Your task to perform on an android device: change the upload size in google photos Image 0: 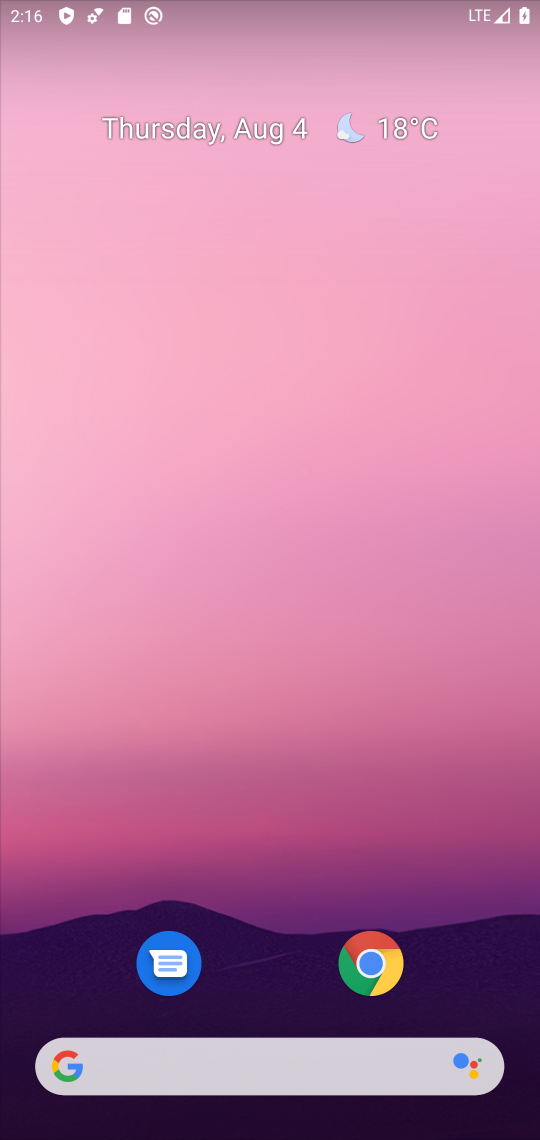
Step 0: drag from (259, 1101) to (180, 169)
Your task to perform on an android device: change the upload size in google photos Image 1: 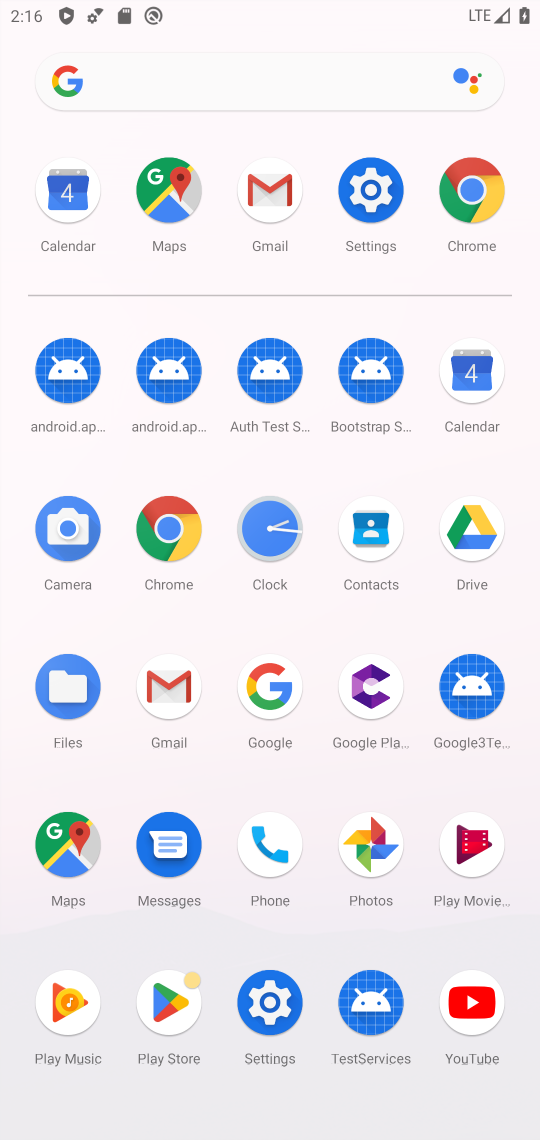
Step 1: click (377, 854)
Your task to perform on an android device: change the upload size in google photos Image 2: 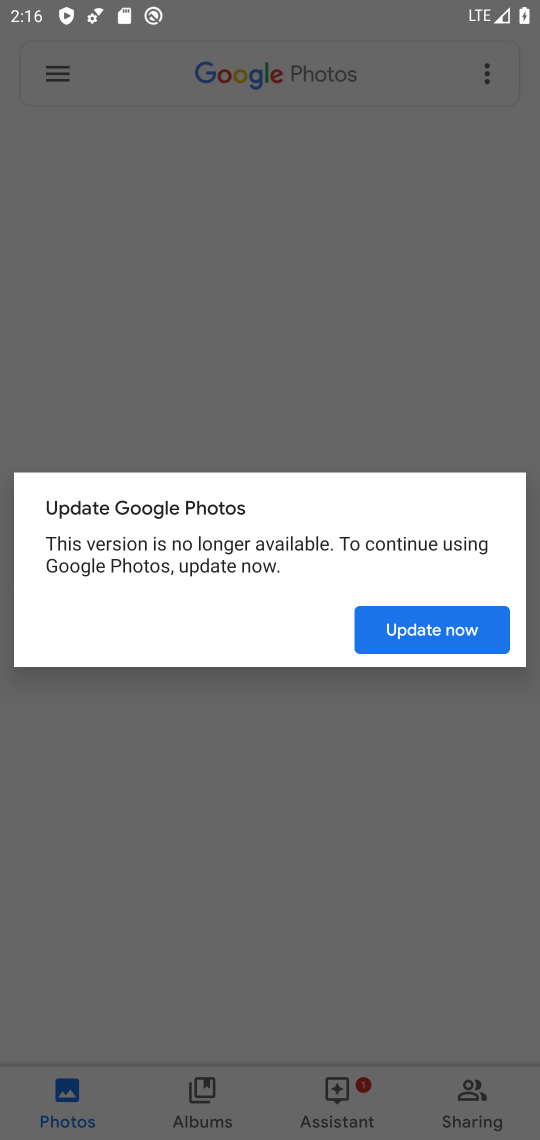
Step 2: click (449, 635)
Your task to perform on an android device: change the upload size in google photos Image 3: 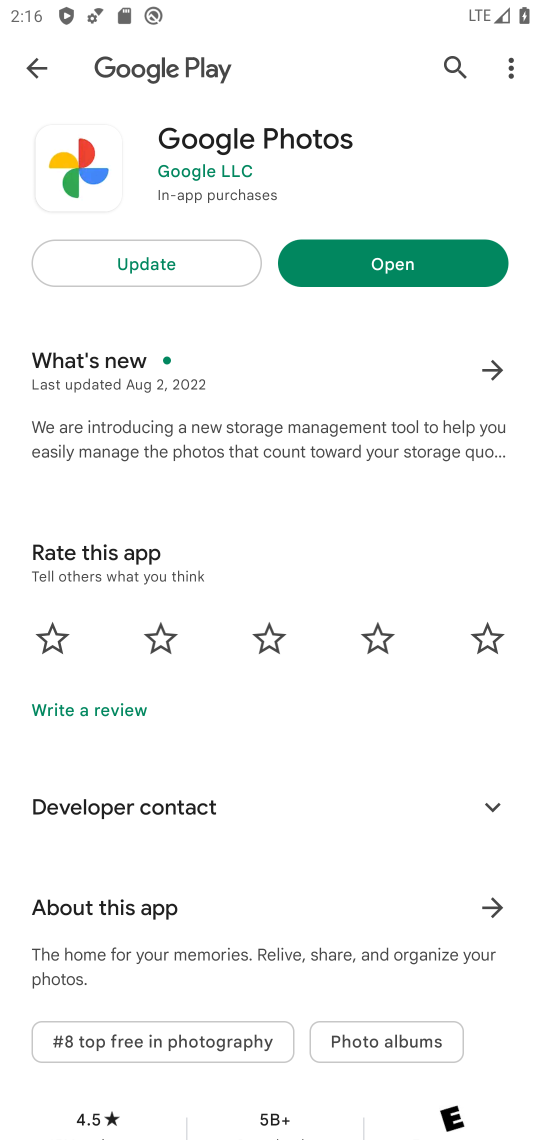
Step 3: click (199, 268)
Your task to perform on an android device: change the upload size in google photos Image 4: 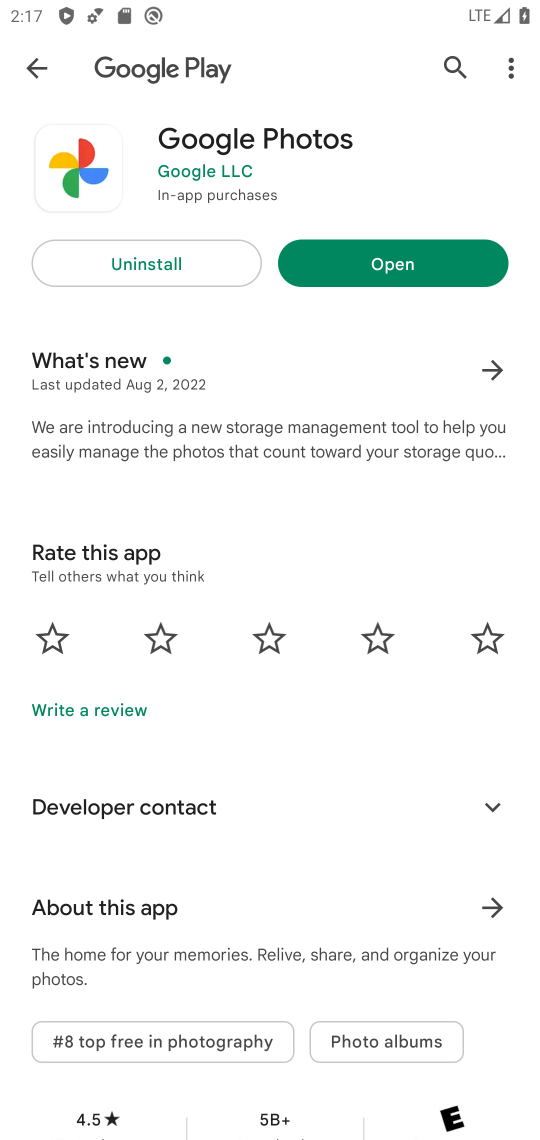
Step 4: click (365, 271)
Your task to perform on an android device: change the upload size in google photos Image 5: 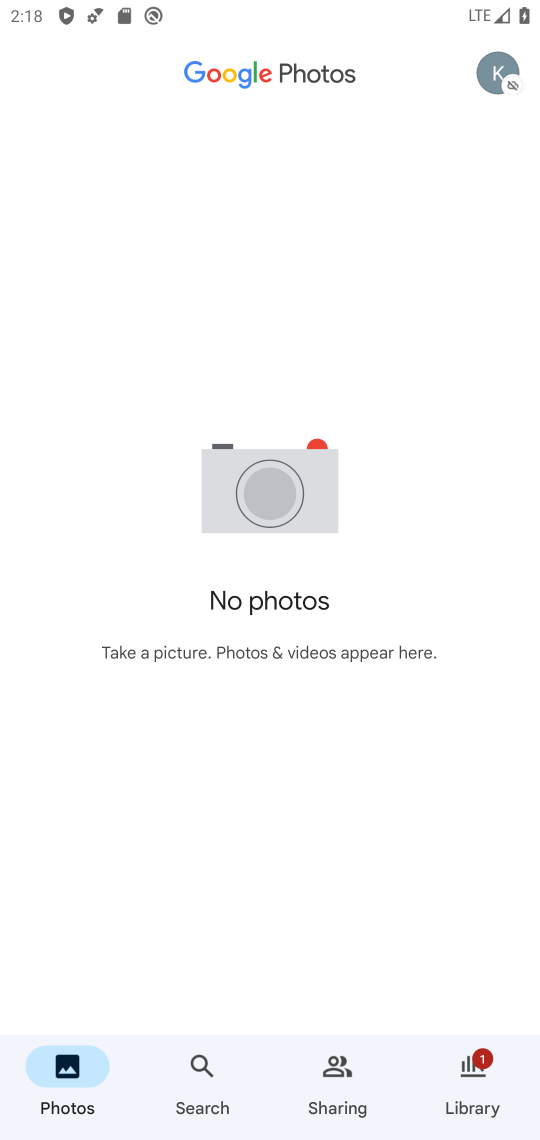
Step 5: click (491, 65)
Your task to perform on an android device: change the upload size in google photos Image 6: 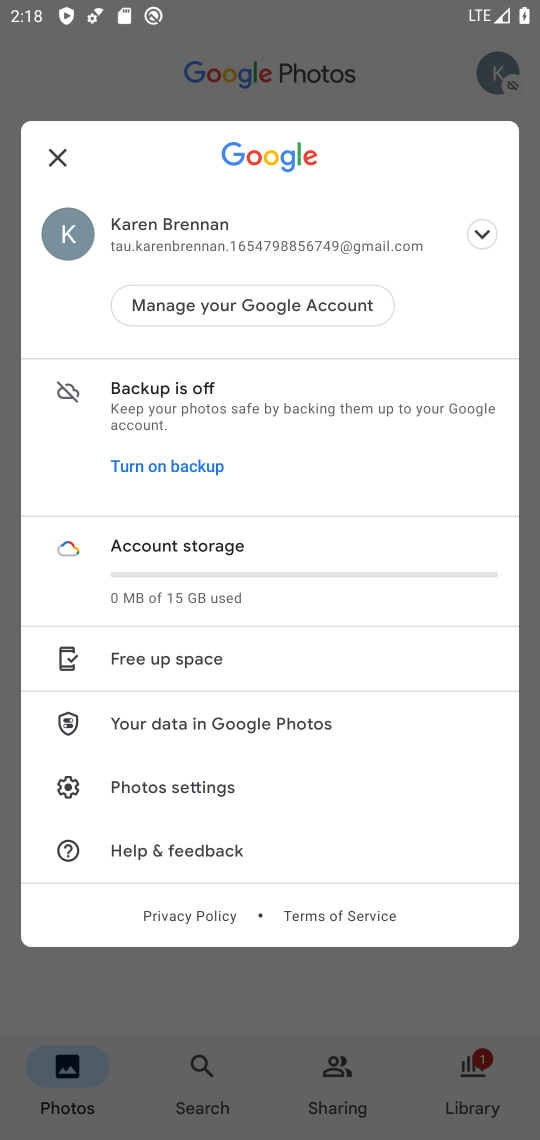
Step 6: click (179, 793)
Your task to perform on an android device: change the upload size in google photos Image 7: 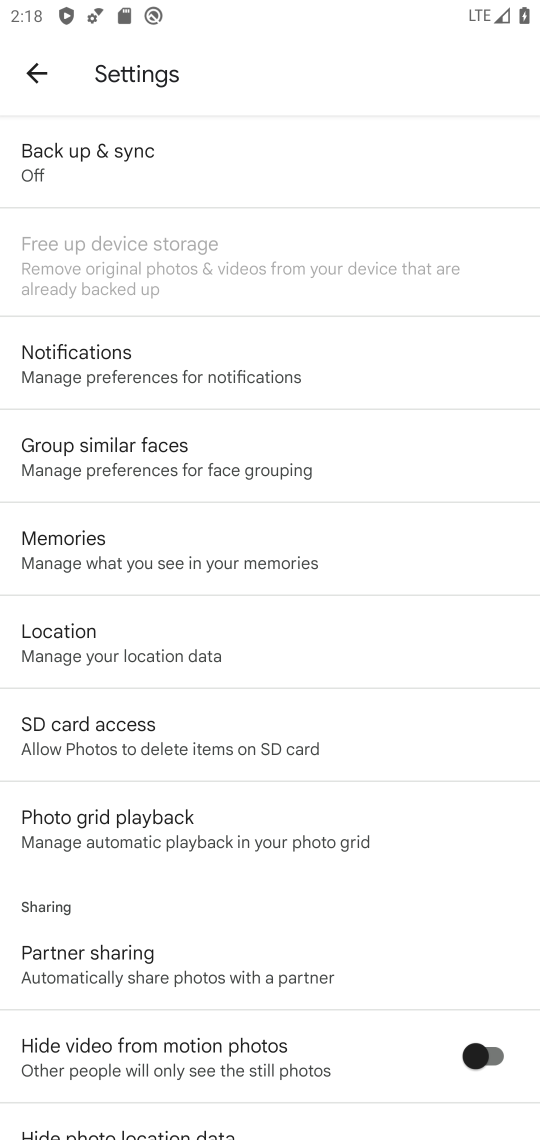
Step 7: click (133, 176)
Your task to perform on an android device: change the upload size in google photos Image 8: 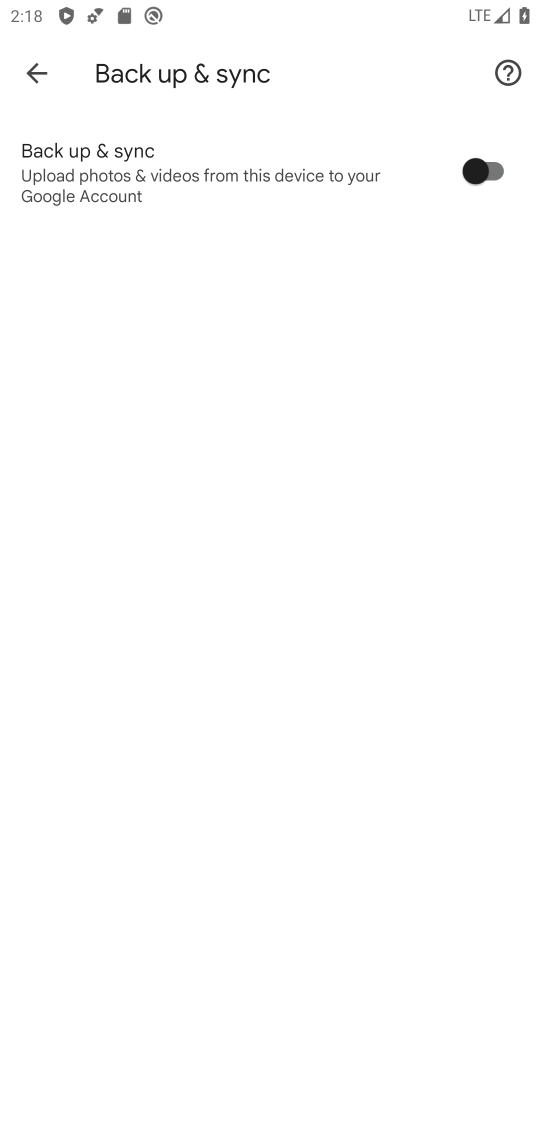
Step 8: click (481, 169)
Your task to perform on an android device: change the upload size in google photos Image 9: 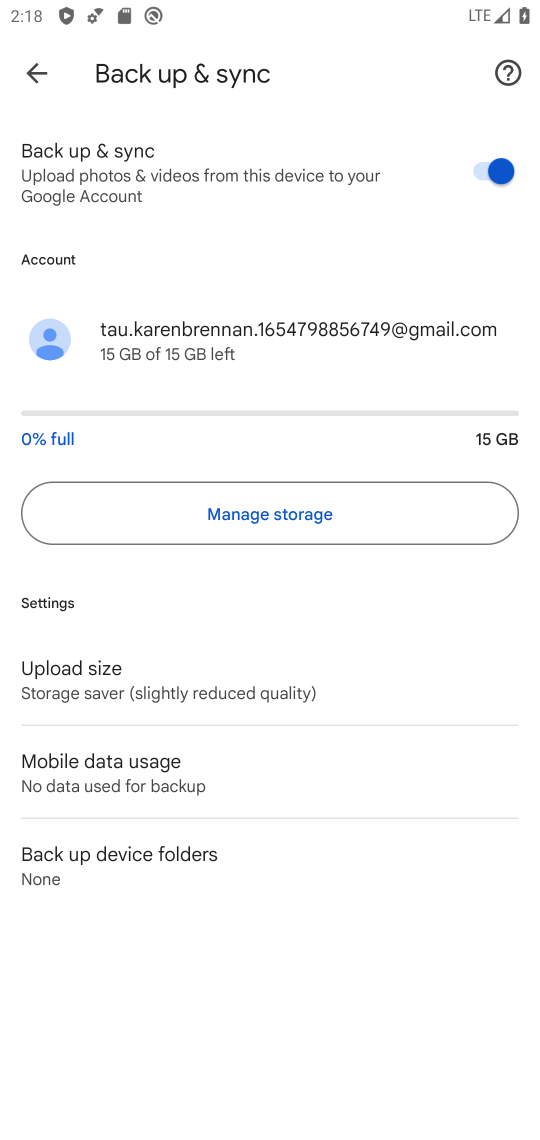
Step 9: click (119, 679)
Your task to perform on an android device: change the upload size in google photos Image 10: 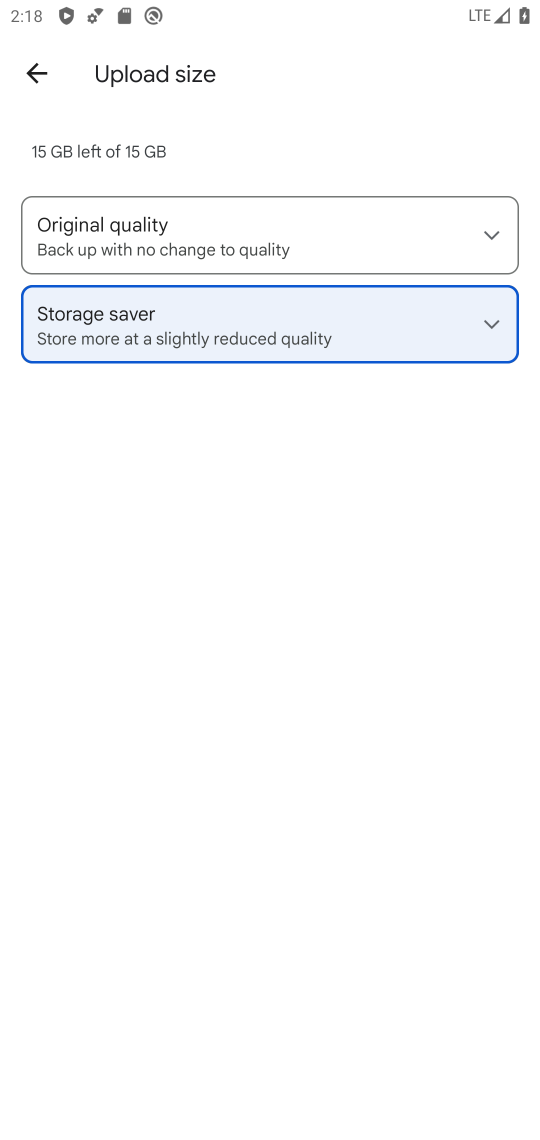
Step 10: click (220, 258)
Your task to perform on an android device: change the upload size in google photos Image 11: 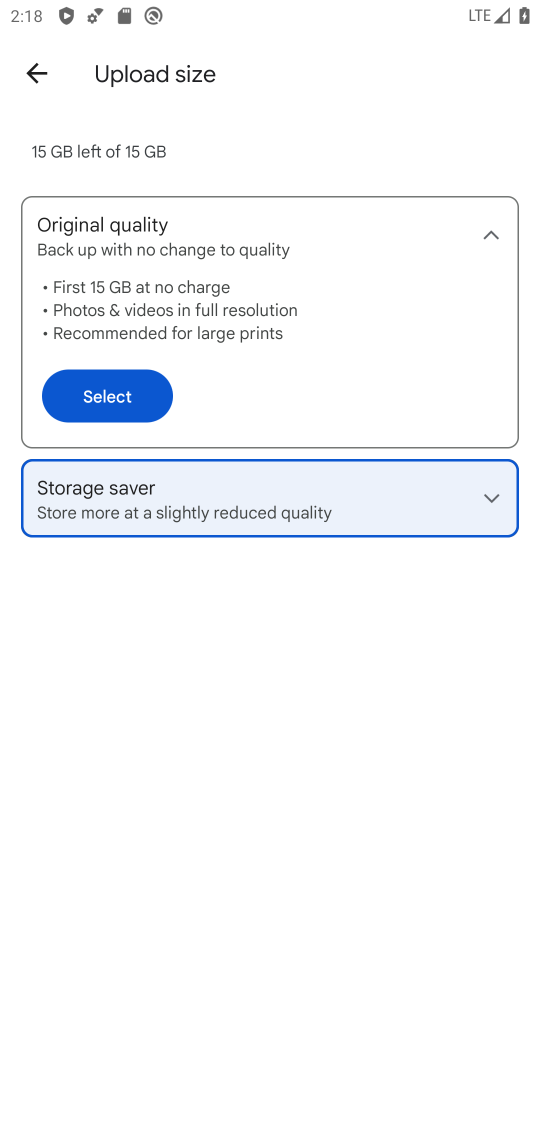
Step 11: click (113, 409)
Your task to perform on an android device: change the upload size in google photos Image 12: 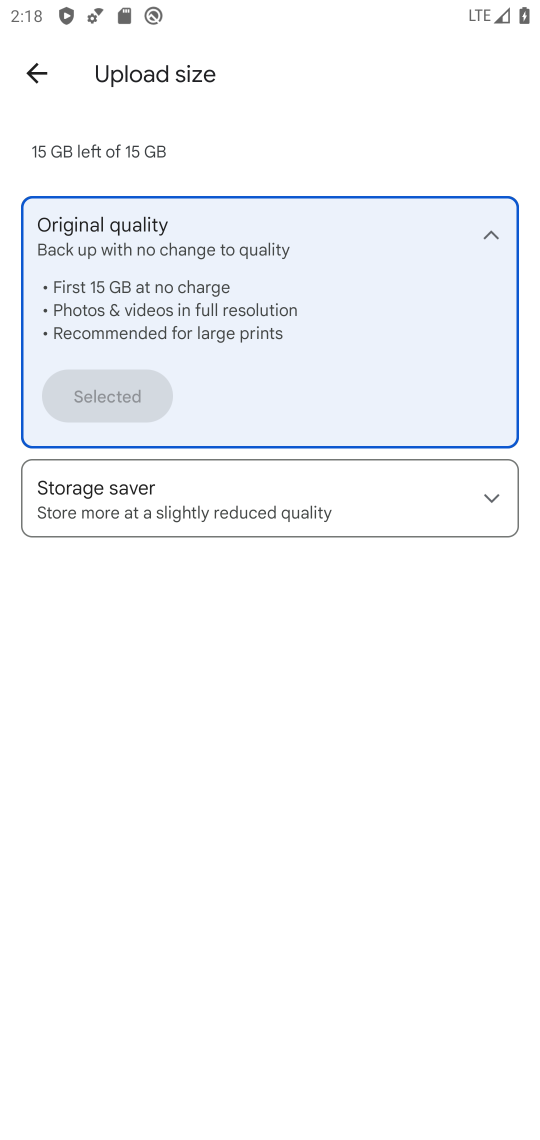
Step 12: task complete